Your task to perform on an android device: turn off notifications in google photos Image 0: 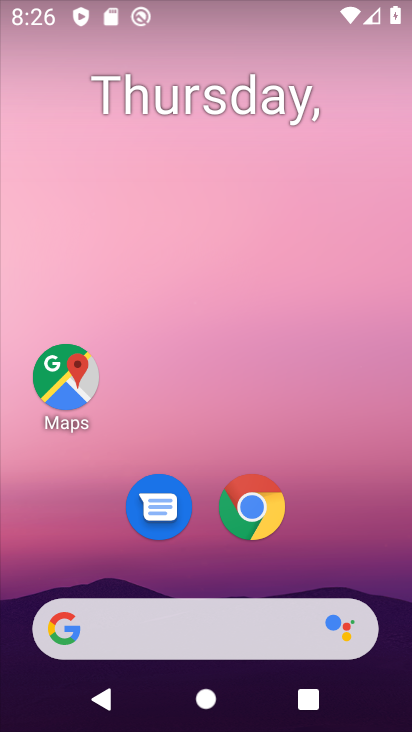
Step 0: drag from (216, 562) to (308, 12)
Your task to perform on an android device: turn off notifications in google photos Image 1: 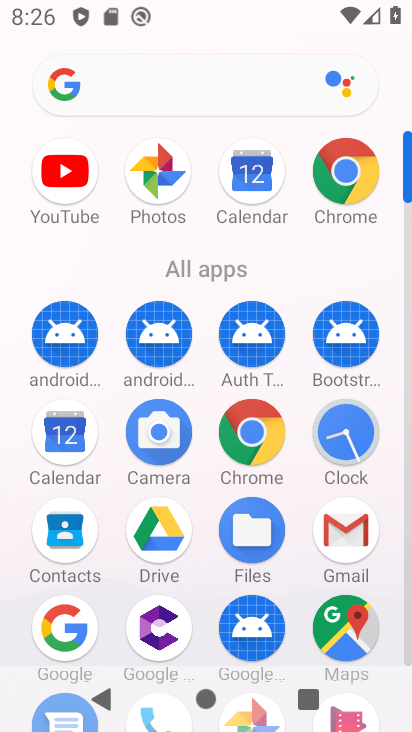
Step 1: drag from (239, 639) to (298, 303)
Your task to perform on an android device: turn off notifications in google photos Image 2: 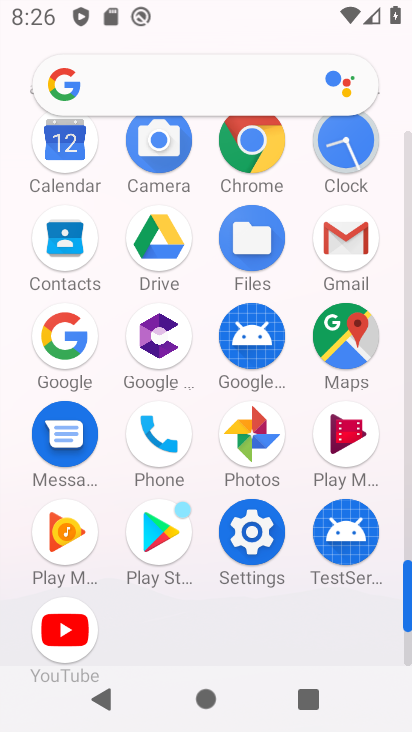
Step 2: click (260, 461)
Your task to perform on an android device: turn off notifications in google photos Image 3: 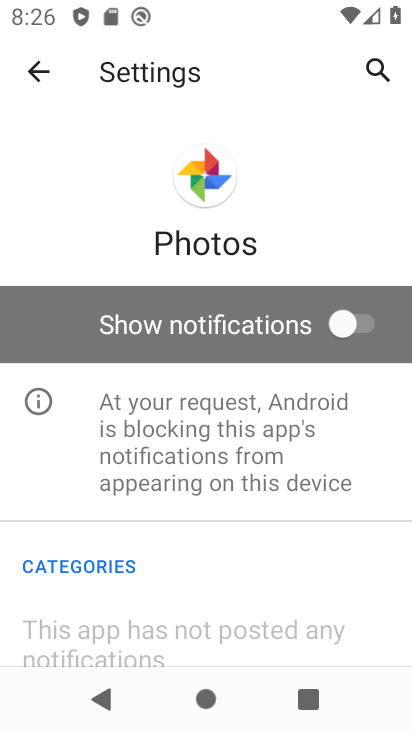
Step 3: task complete